Your task to perform on an android device: turn on wifi Image 0: 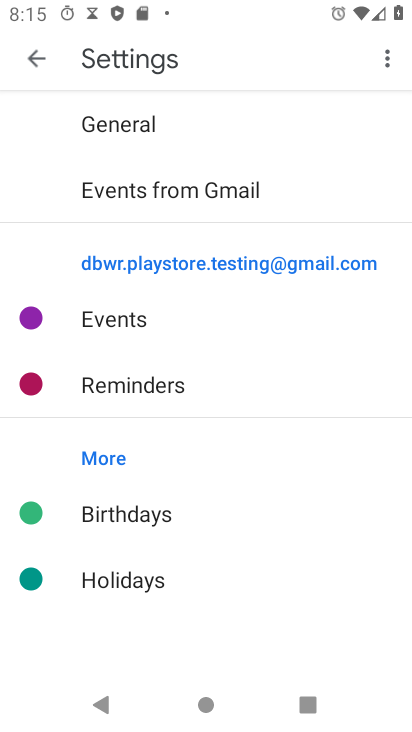
Step 0: press home button
Your task to perform on an android device: turn on wifi Image 1: 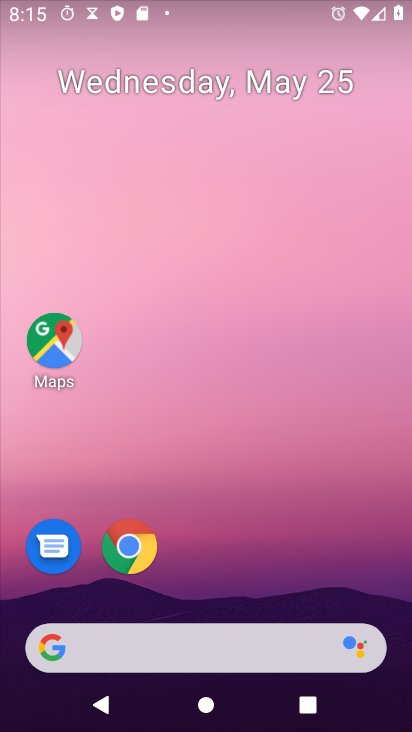
Step 1: drag from (205, 583) to (254, 222)
Your task to perform on an android device: turn on wifi Image 2: 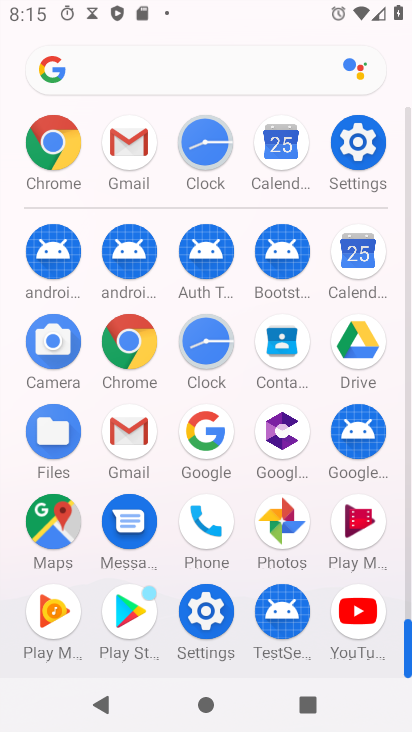
Step 2: click (355, 144)
Your task to perform on an android device: turn on wifi Image 3: 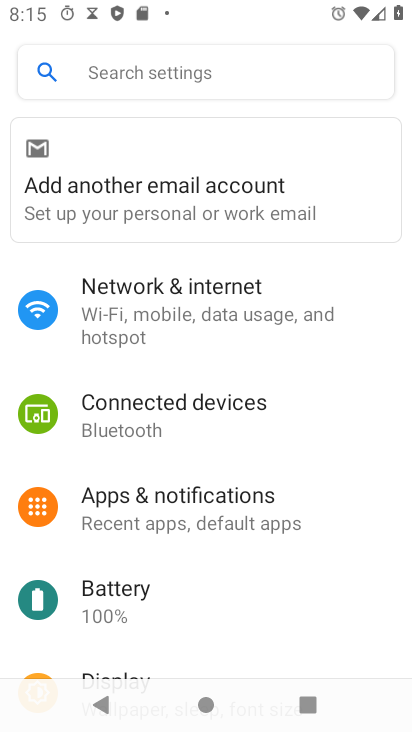
Step 3: click (176, 308)
Your task to perform on an android device: turn on wifi Image 4: 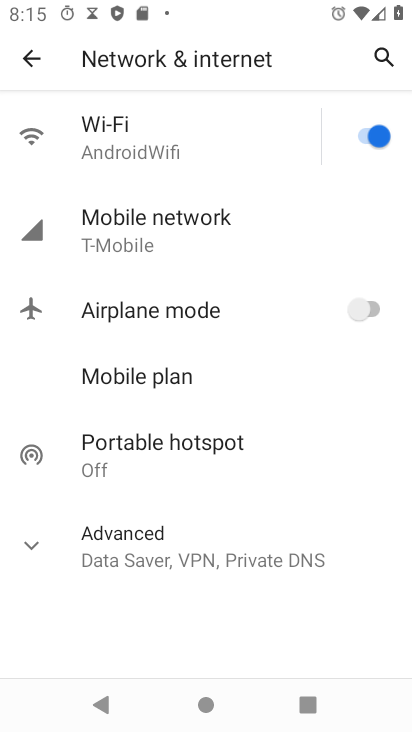
Step 4: task complete